Your task to perform on an android device: turn on wifi Image 0: 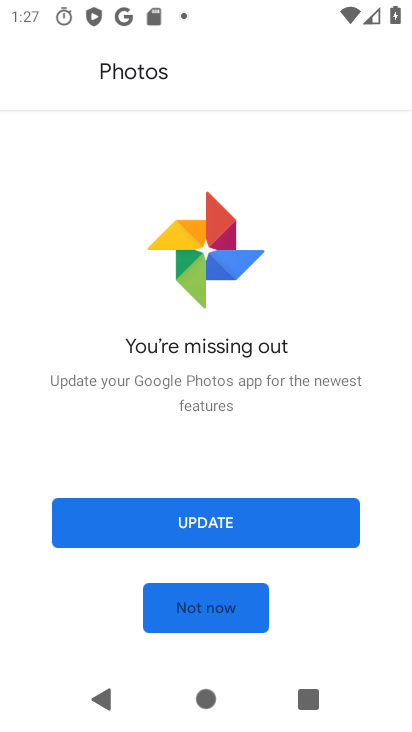
Step 0: press home button
Your task to perform on an android device: turn on wifi Image 1: 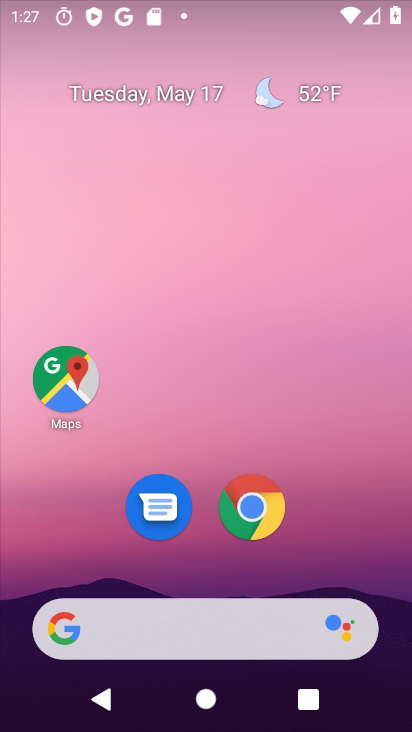
Step 1: drag from (212, 559) to (183, 158)
Your task to perform on an android device: turn on wifi Image 2: 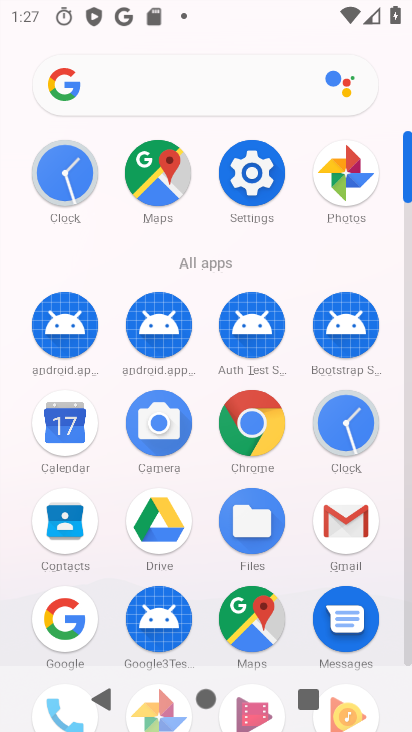
Step 2: click (257, 193)
Your task to perform on an android device: turn on wifi Image 3: 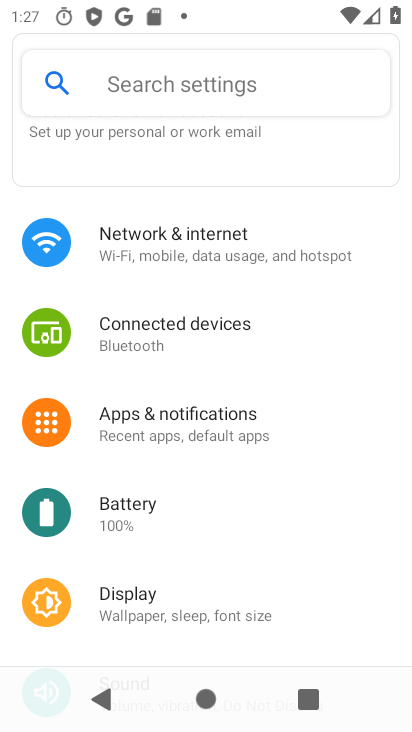
Step 3: click (197, 263)
Your task to perform on an android device: turn on wifi Image 4: 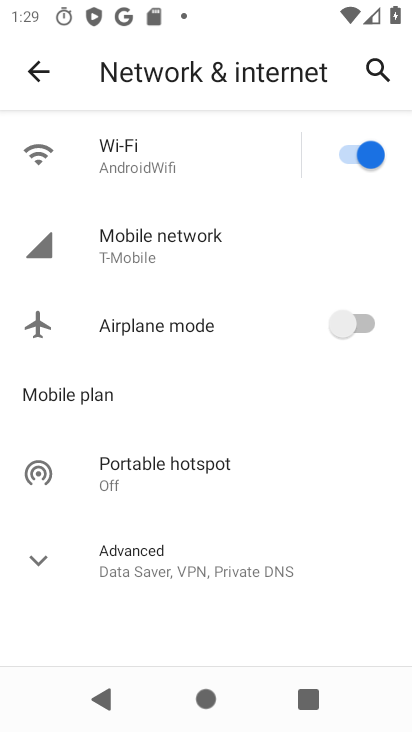
Step 4: task complete